Your task to perform on an android device: toggle notification dots Image 0: 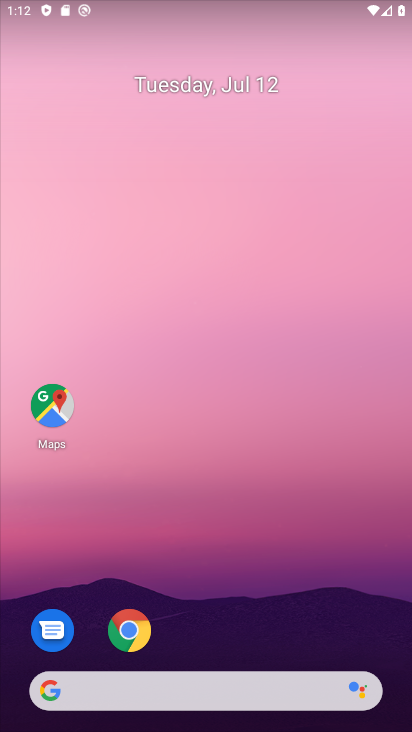
Step 0: drag from (210, 671) to (122, 98)
Your task to perform on an android device: toggle notification dots Image 1: 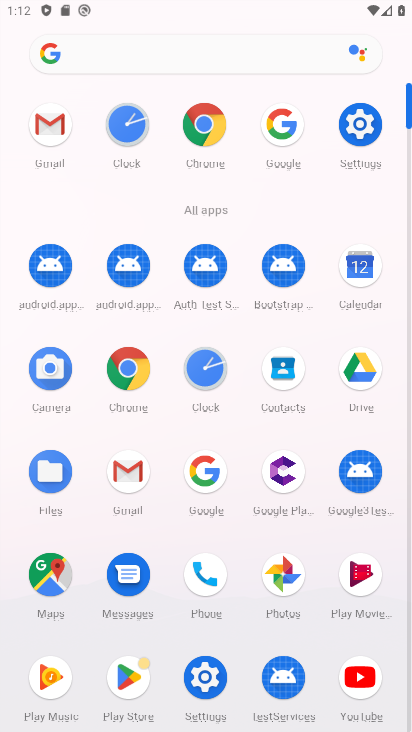
Step 1: click (370, 119)
Your task to perform on an android device: toggle notification dots Image 2: 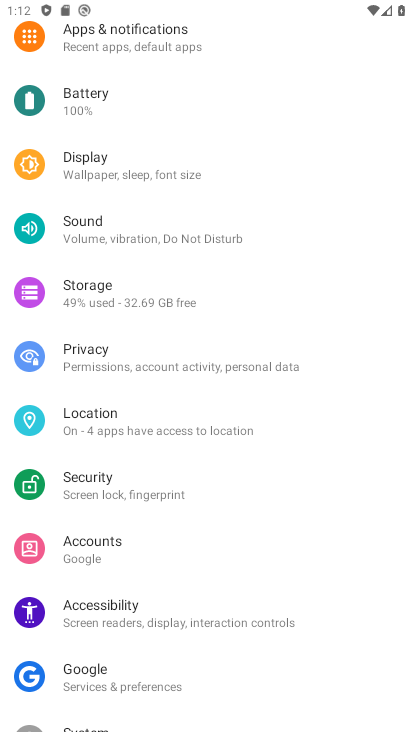
Step 2: drag from (114, 190) to (139, 460)
Your task to perform on an android device: toggle notification dots Image 3: 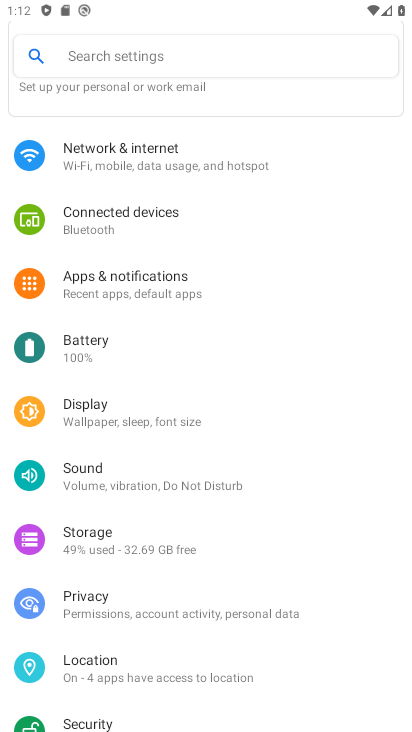
Step 3: click (123, 273)
Your task to perform on an android device: toggle notification dots Image 4: 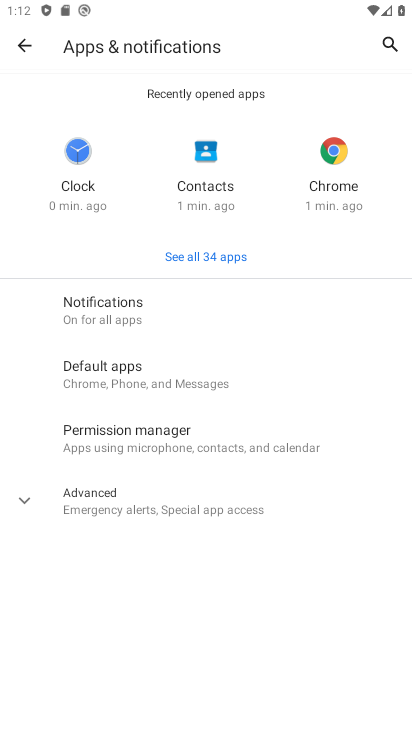
Step 4: click (114, 315)
Your task to perform on an android device: toggle notification dots Image 5: 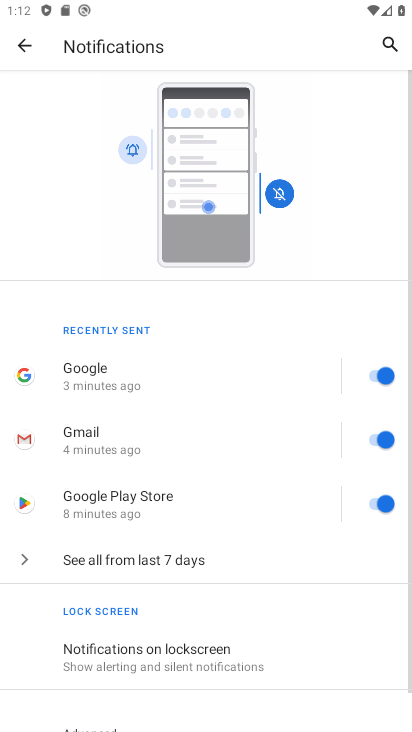
Step 5: drag from (173, 641) to (146, 237)
Your task to perform on an android device: toggle notification dots Image 6: 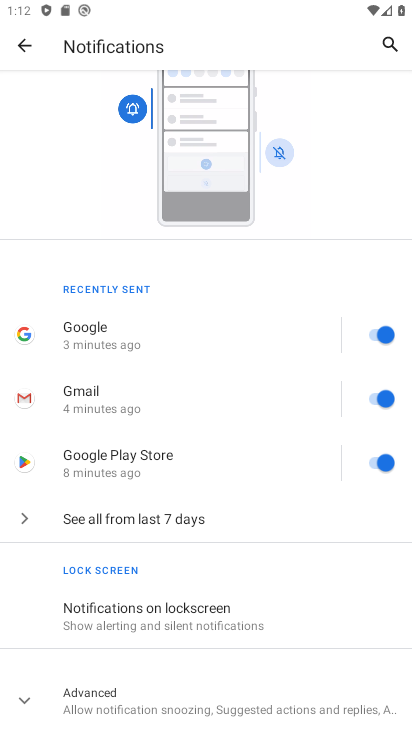
Step 6: click (114, 687)
Your task to perform on an android device: toggle notification dots Image 7: 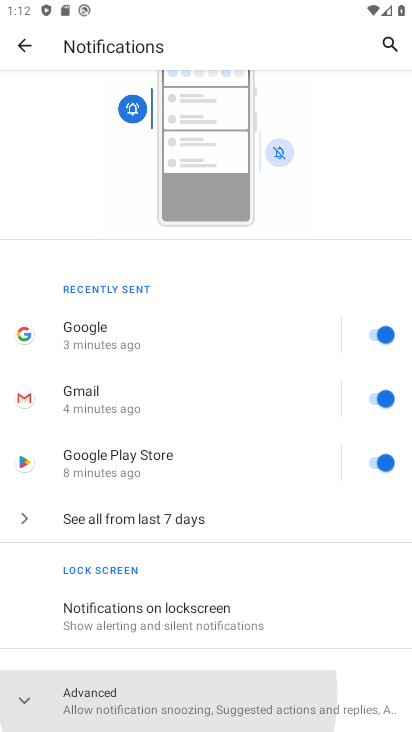
Step 7: drag from (106, 687) to (71, 235)
Your task to perform on an android device: toggle notification dots Image 8: 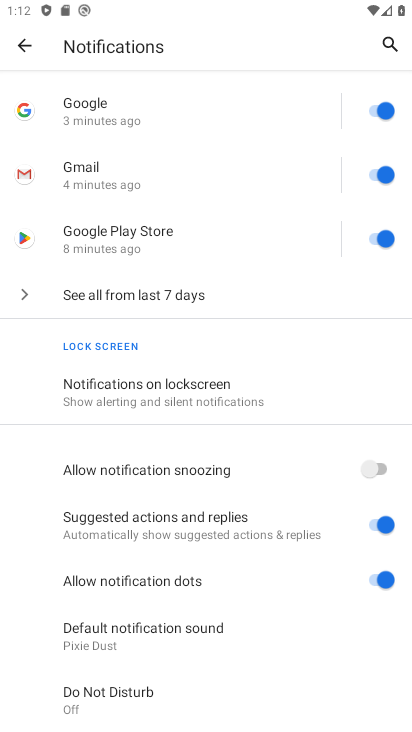
Step 8: click (377, 576)
Your task to perform on an android device: toggle notification dots Image 9: 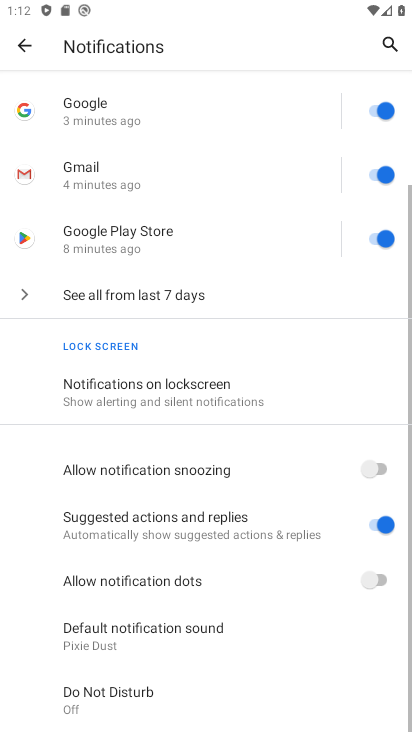
Step 9: task complete